Your task to perform on an android device: turn off location Image 0: 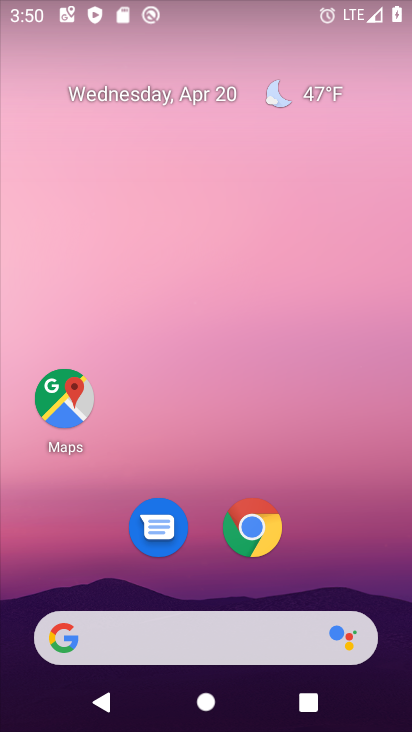
Step 0: drag from (304, 513) to (330, 121)
Your task to perform on an android device: turn off location Image 1: 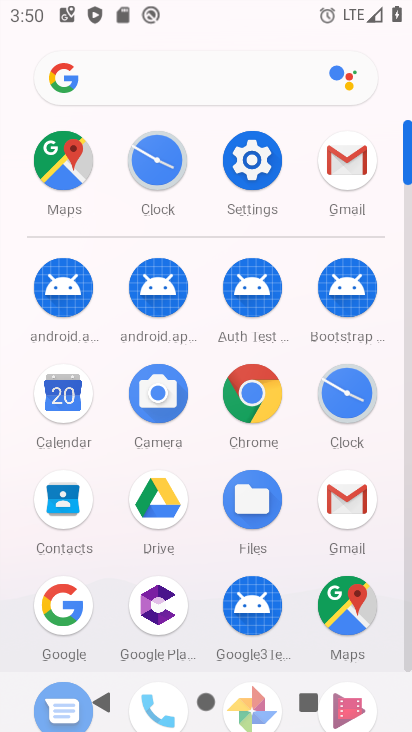
Step 1: click (255, 177)
Your task to perform on an android device: turn off location Image 2: 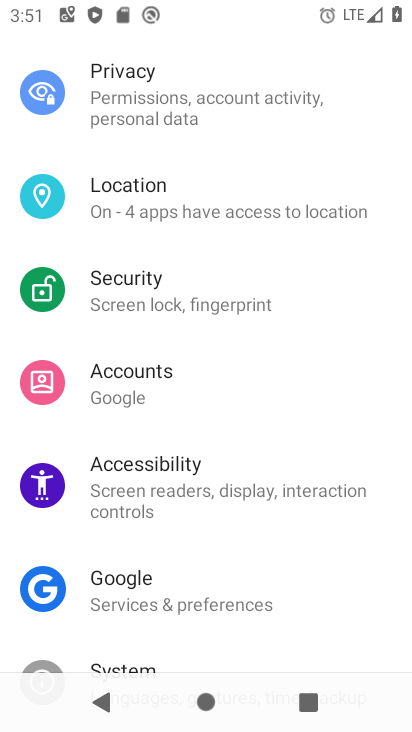
Step 2: click (256, 205)
Your task to perform on an android device: turn off location Image 3: 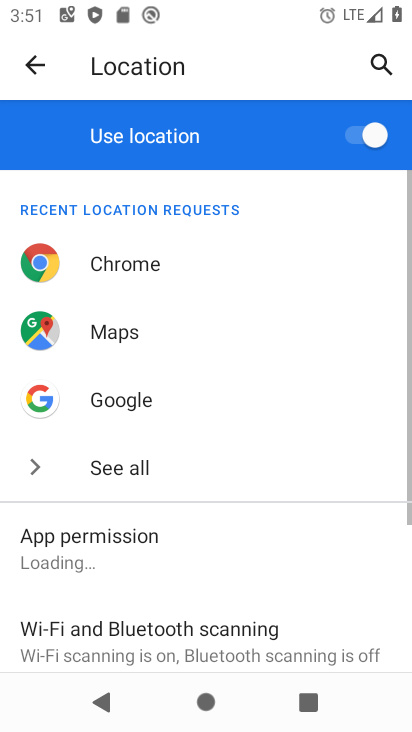
Step 3: click (355, 142)
Your task to perform on an android device: turn off location Image 4: 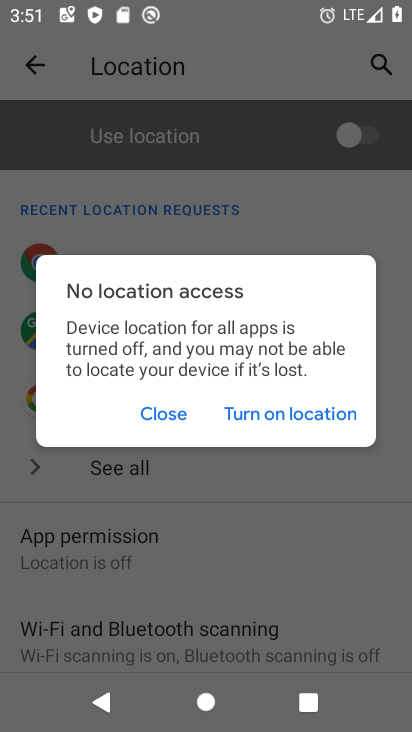
Step 4: task complete